Your task to perform on an android device: toggle javascript in the chrome app Image 0: 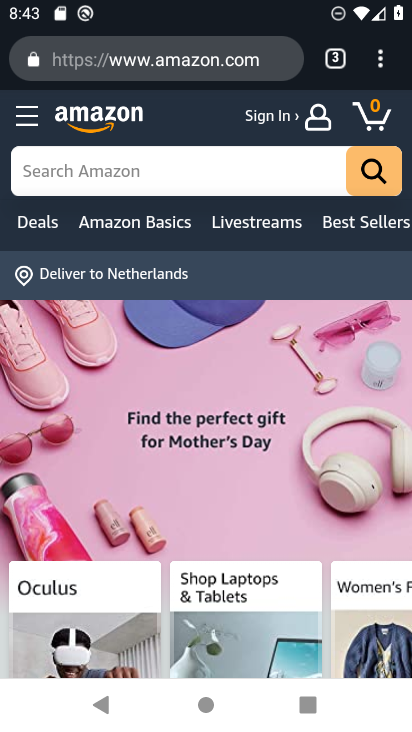
Step 0: press home button
Your task to perform on an android device: toggle javascript in the chrome app Image 1: 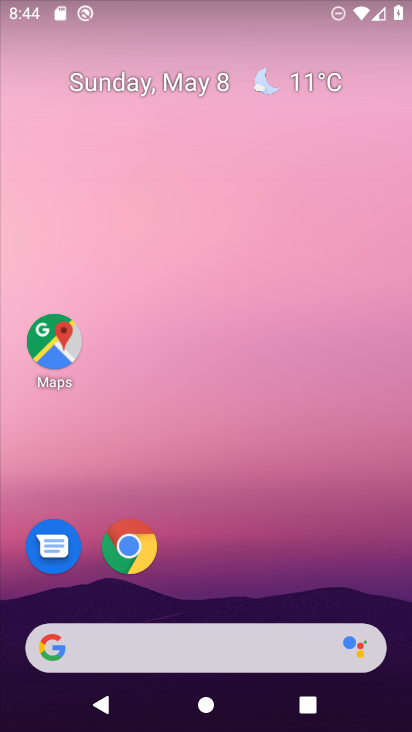
Step 1: click (145, 536)
Your task to perform on an android device: toggle javascript in the chrome app Image 2: 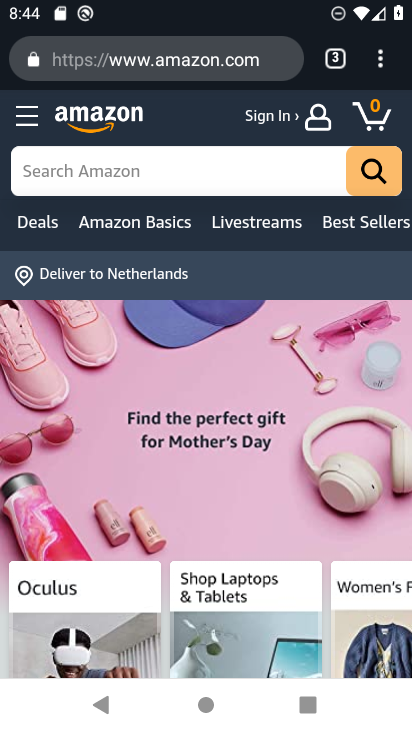
Step 2: click (376, 64)
Your task to perform on an android device: toggle javascript in the chrome app Image 3: 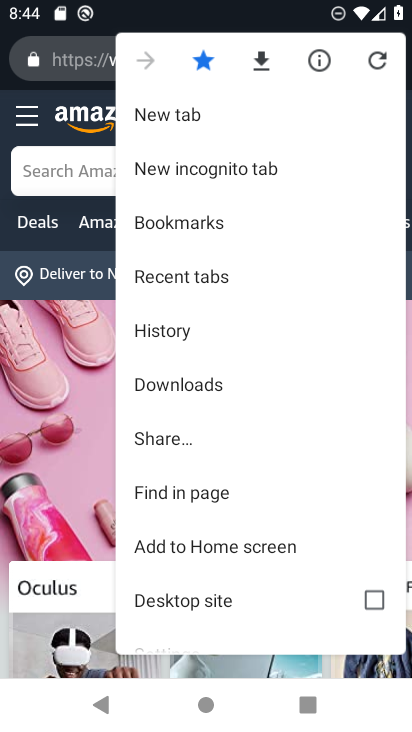
Step 3: drag from (268, 512) to (289, 340)
Your task to perform on an android device: toggle javascript in the chrome app Image 4: 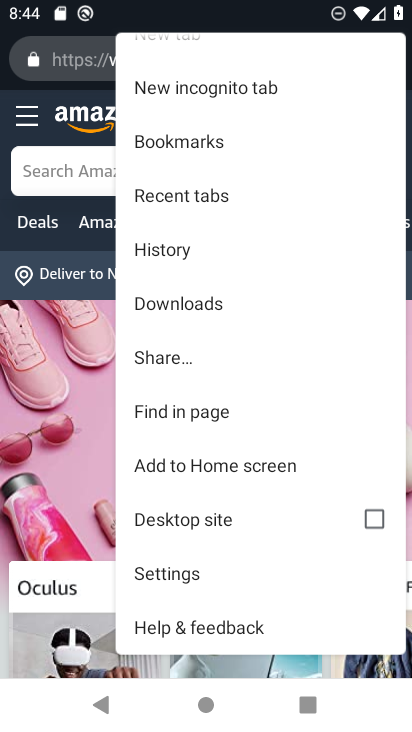
Step 4: click (192, 581)
Your task to perform on an android device: toggle javascript in the chrome app Image 5: 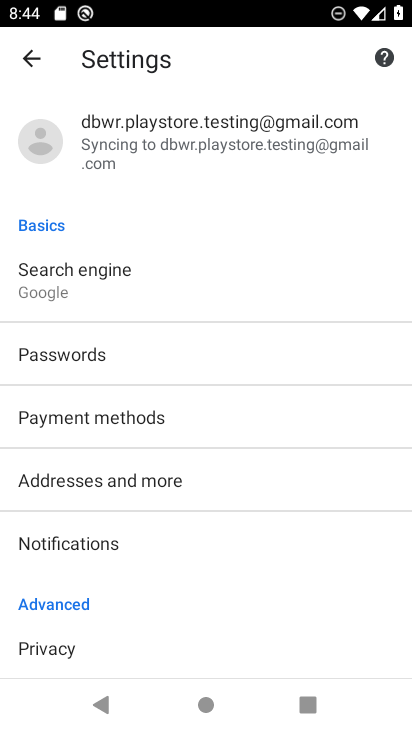
Step 5: drag from (192, 581) to (191, 423)
Your task to perform on an android device: toggle javascript in the chrome app Image 6: 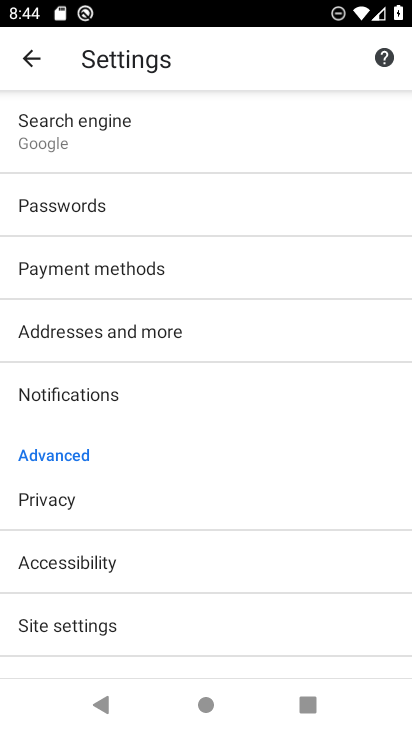
Step 6: click (170, 619)
Your task to perform on an android device: toggle javascript in the chrome app Image 7: 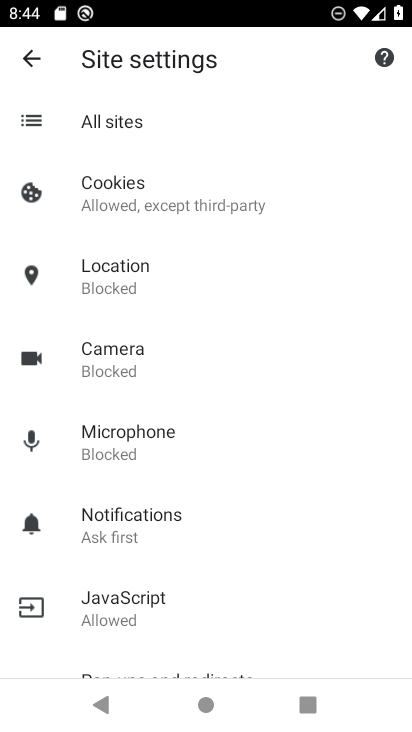
Step 7: click (170, 619)
Your task to perform on an android device: toggle javascript in the chrome app Image 8: 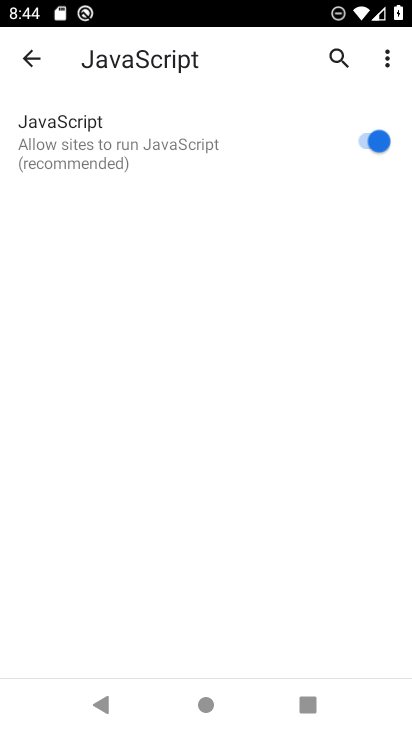
Step 8: click (365, 128)
Your task to perform on an android device: toggle javascript in the chrome app Image 9: 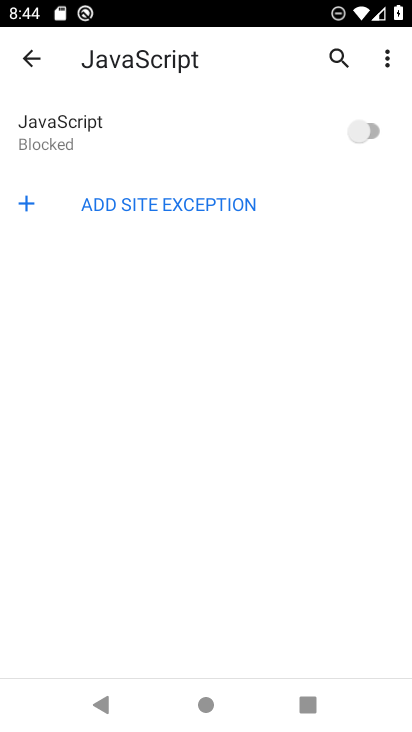
Step 9: task complete